Your task to perform on an android device: empty trash in the gmail app Image 0: 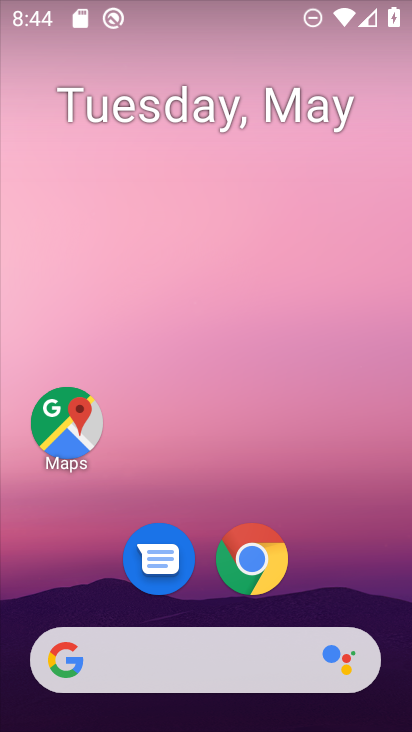
Step 0: drag from (171, 556) to (228, 70)
Your task to perform on an android device: empty trash in the gmail app Image 1: 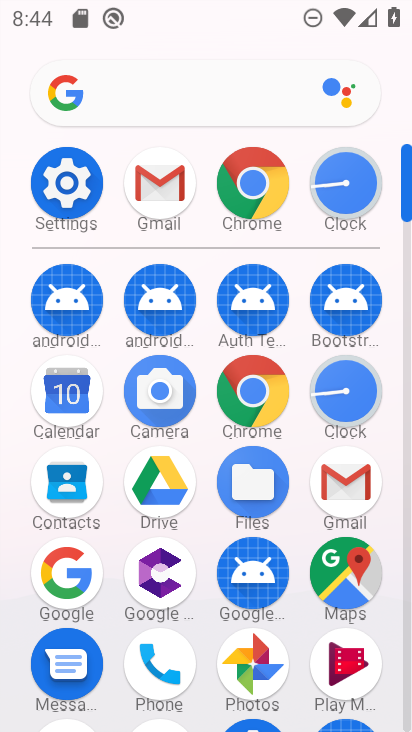
Step 1: click (161, 175)
Your task to perform on an android device: empty trash in the gmail app Image 2: 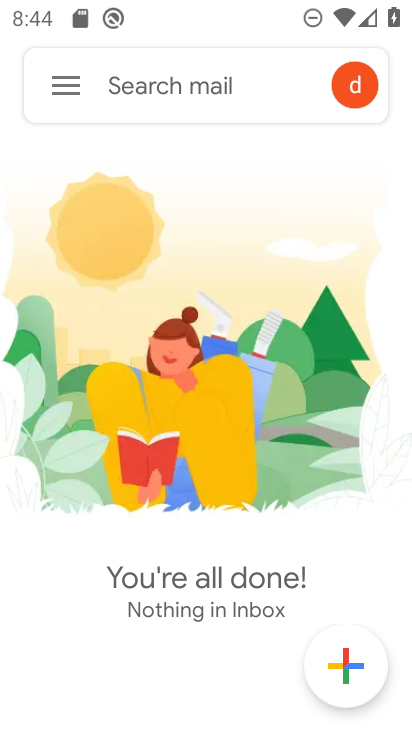
Step 2: click (75, 87)
Your task to perform on an android device: empty trash in the gmail app Image 3: 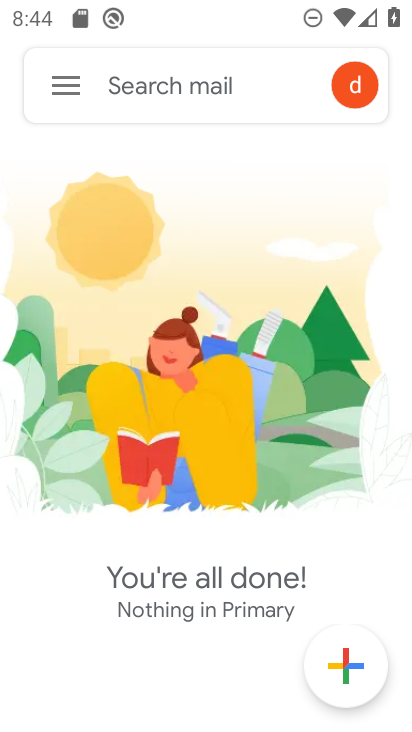
Step 3: click (73, 87)
Your task to perform on an android device: empty trash in the gmail app Image 4: 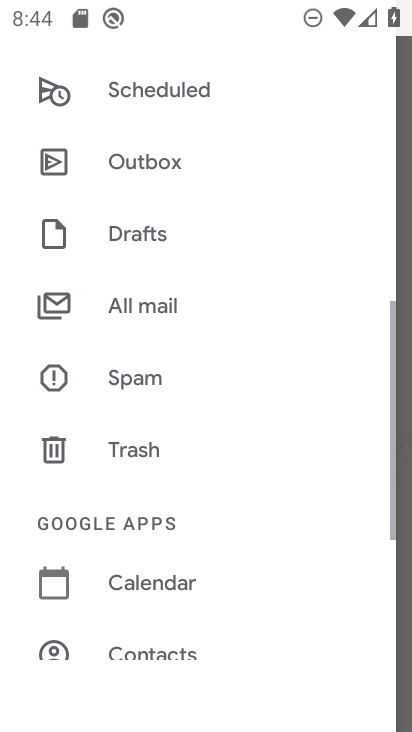
Step 4: click (133, 447)
Your task to perform on an android device: empty trash in the gmail app Image 5: 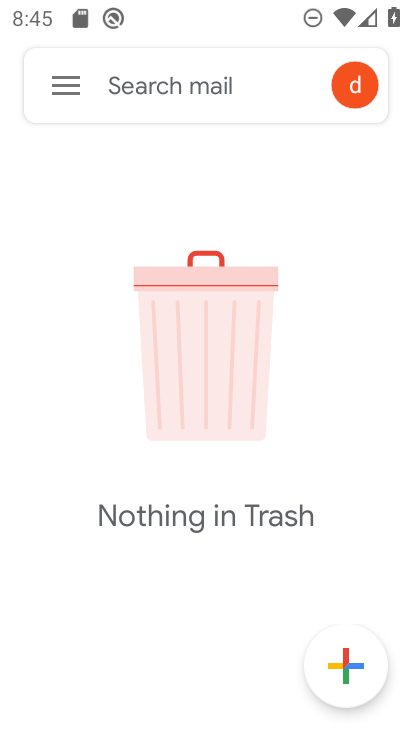
Step 5: task complete